Your task to perform on an android device: toggle improve location accuracy Image 0: 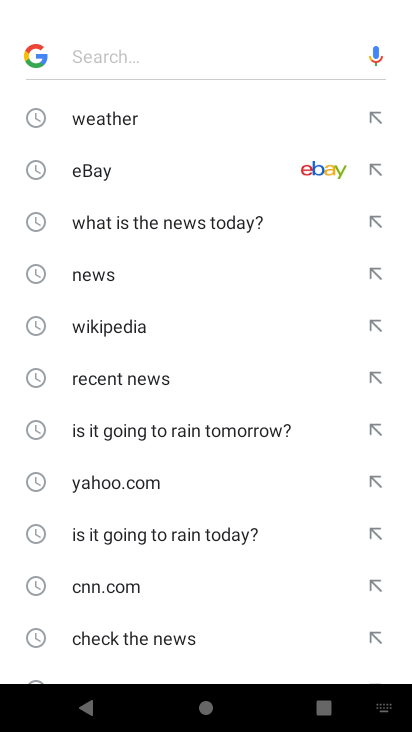
Step 0: press home button
Your task to perform on an android device: toggle improve location accuracy Image 1: 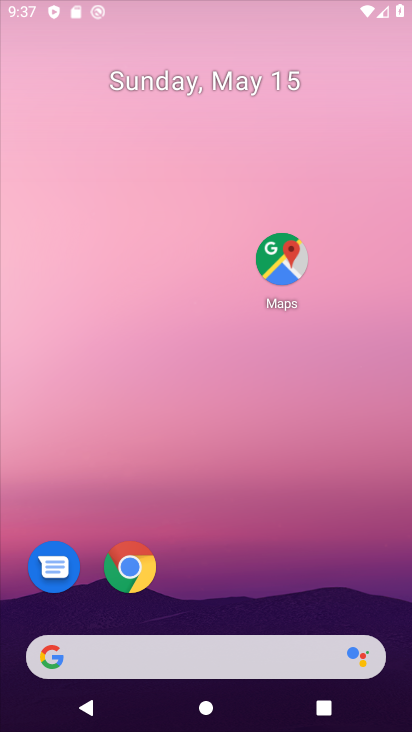
Step 1: drag from (194, 429) to (178, 63)
Your task to perform on an android device: toggle improve location accuracy Image 2: 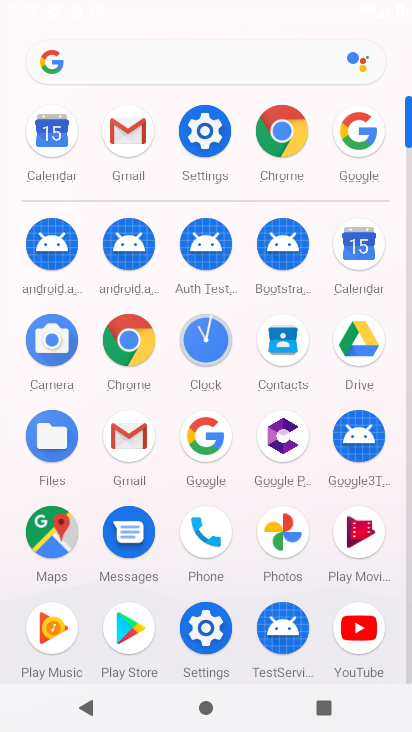
Step 2: click (206, 633)
Your task to perform on an android device: toggle improve location accuracy Image 3: 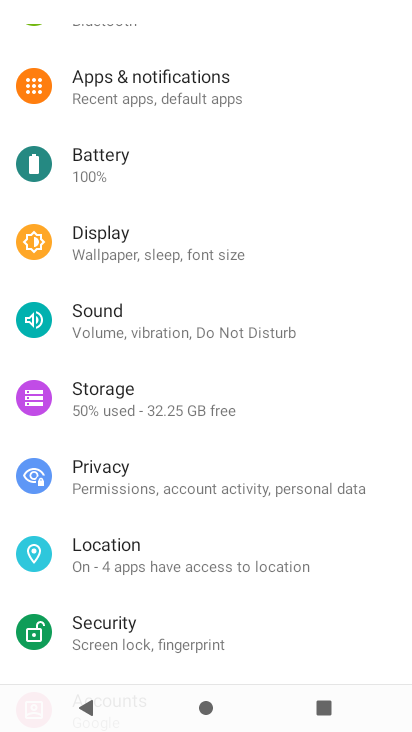
Step 3: click (156, 554)
Your task to perform on an android device: toggle improve location accuracy Image 4: 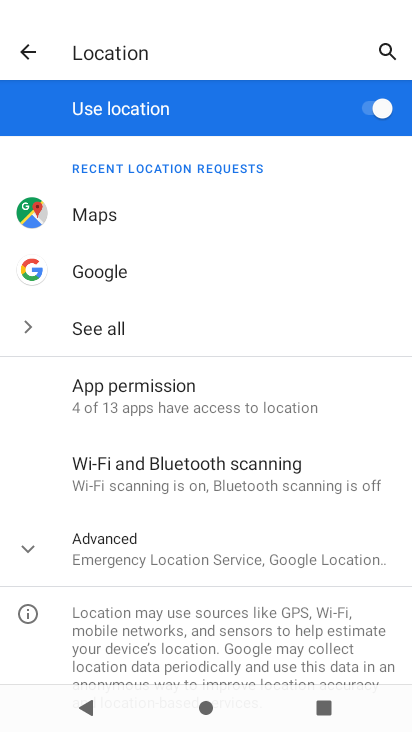
Step 4: click (99, 542)
Your task to perform on an android device: toggle improve location accuracy Image 5: 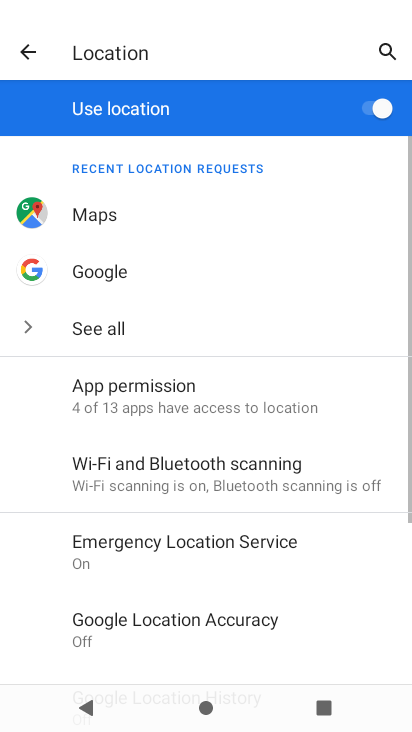
Step 5: drag from (220, 524) to (208, 309)
Your task to perform on an android device: toggle improve location accuracy Image 6: 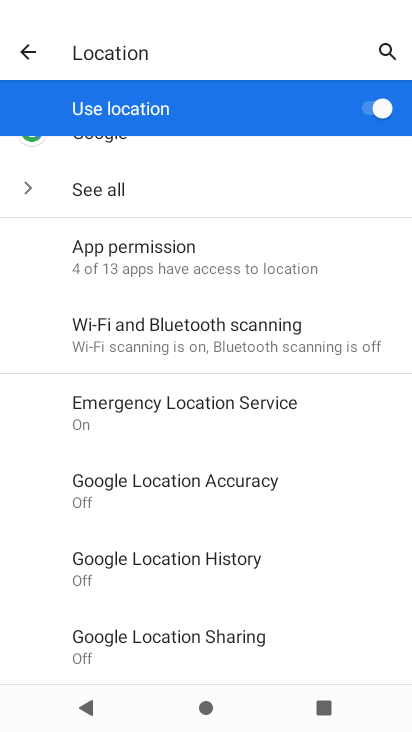
Step 6: click (169, 477)
Your task to perform on an android device: toggle improve location accuracy Image 7: 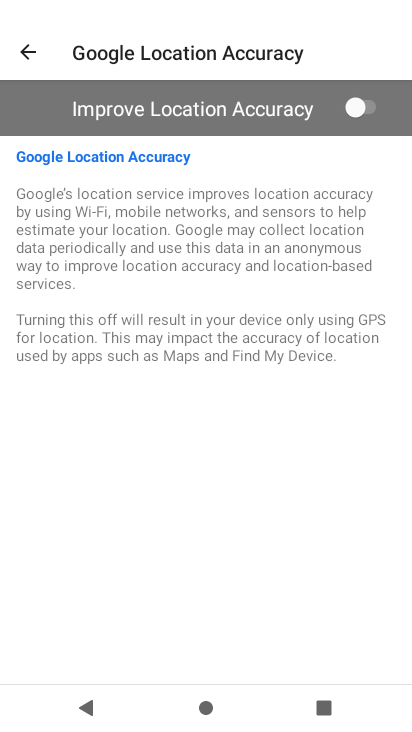
Step 7: click (369, 109)
Your task to perform on an android device: toggle improve location accuracy Image 8: 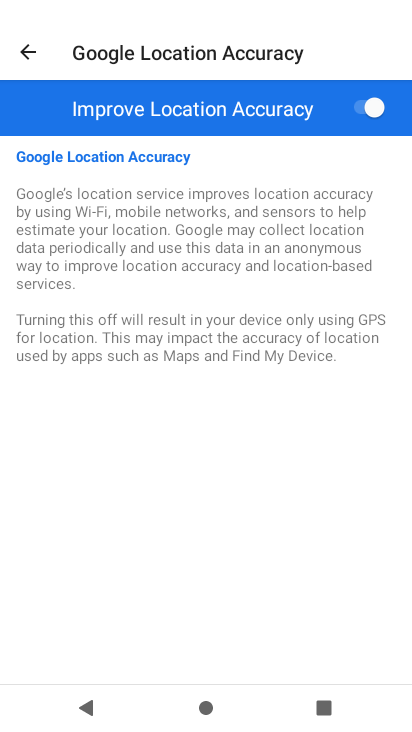
Step 8: task complete